Your task to perform on an android device: add a contact Image 0: 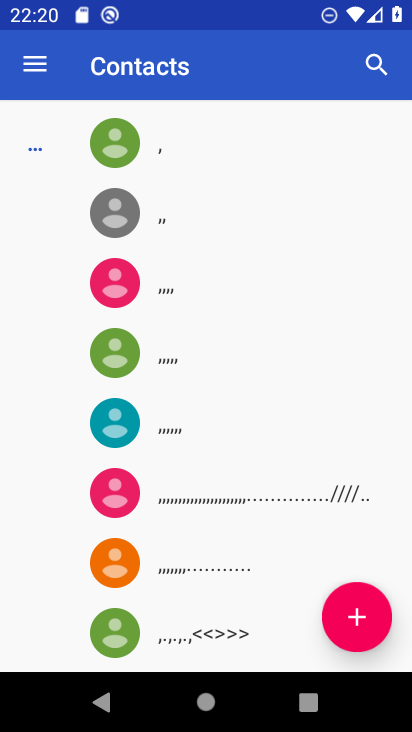
Step 0: press home button
Your task to perform on an android device: add a contact Image 1: 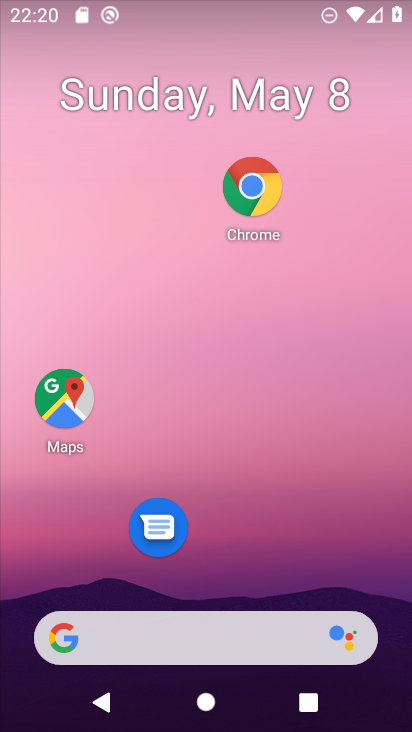
Step 1: drag from (266, 510) to (314, 243)
Your task to perform on an android device: add a contact Image 2: 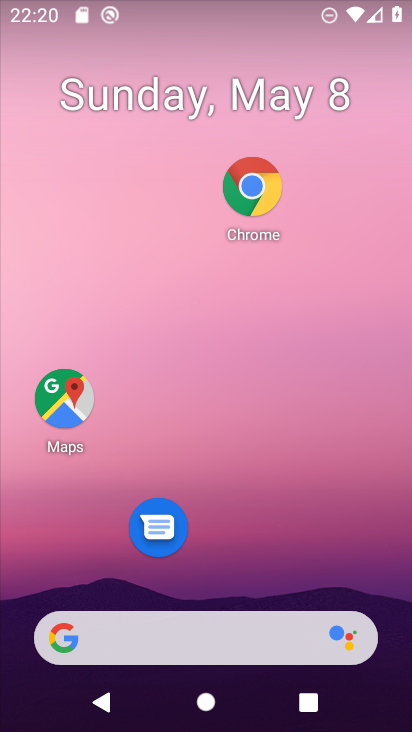
Step 2: drag from (283, 606) to (323, 312)
Your task to perform on an android device: add a contact Image 3: 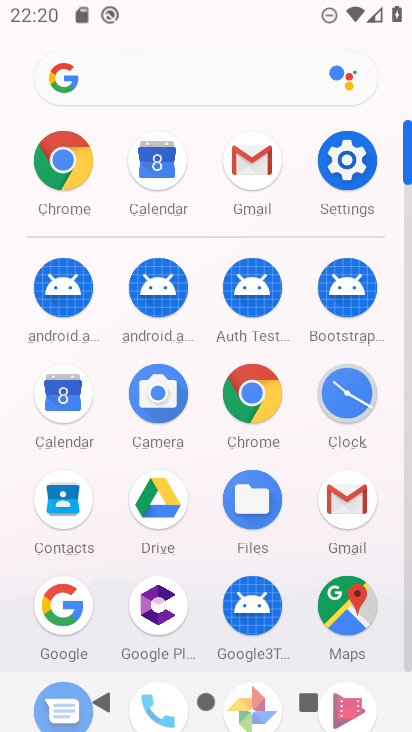
Step 3: drag from (280, 578) to (343, 192)
Your task to perform on an android device: add a contact Image 4: 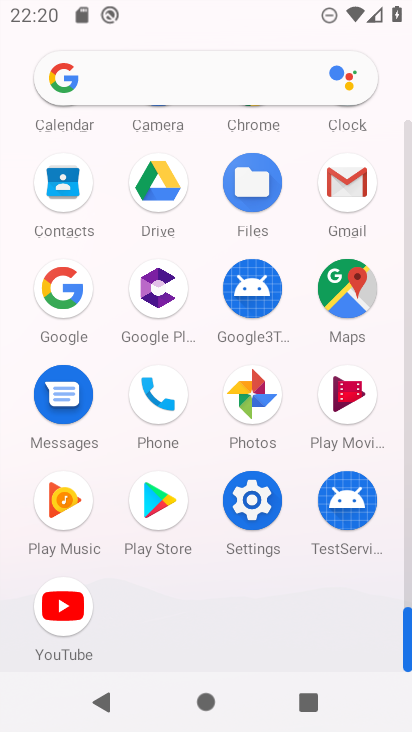
Step 4: click (153, 389)
Your task to perform on an android device: add a contact Image 5: 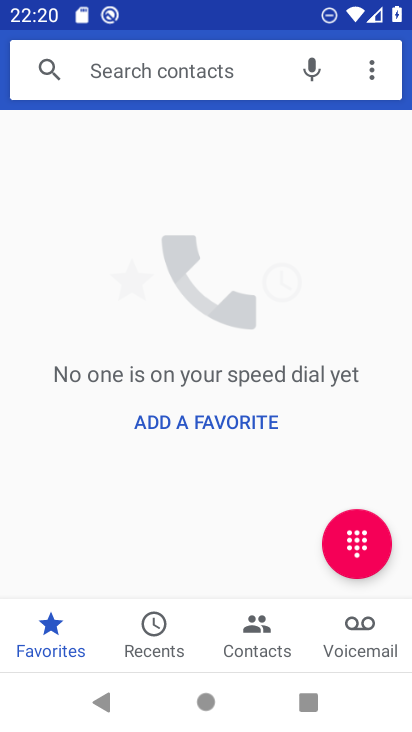
Step 5: click (204, 424)
Your task to perform on an android device: add a contact Image 6: 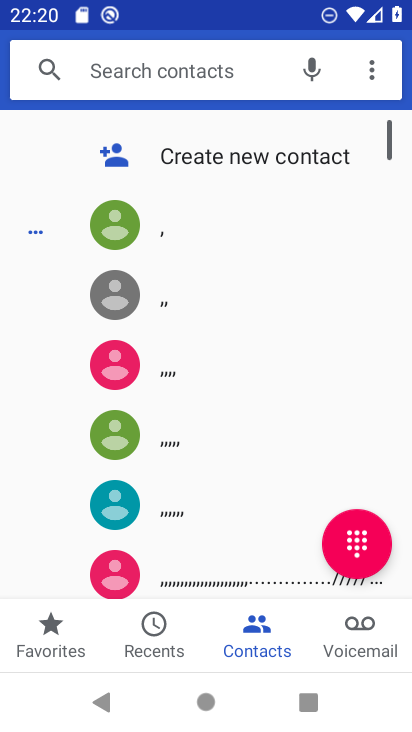
Step 6: click (213, 162)
Your task to perform on an android device: add a contact Image 7: 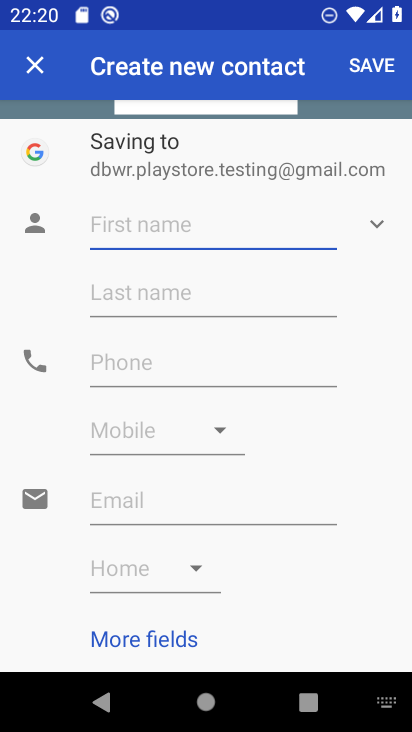
Step 7: type "fffffffffffffg"
Your task to perform on an android device: add a contact Image 8: 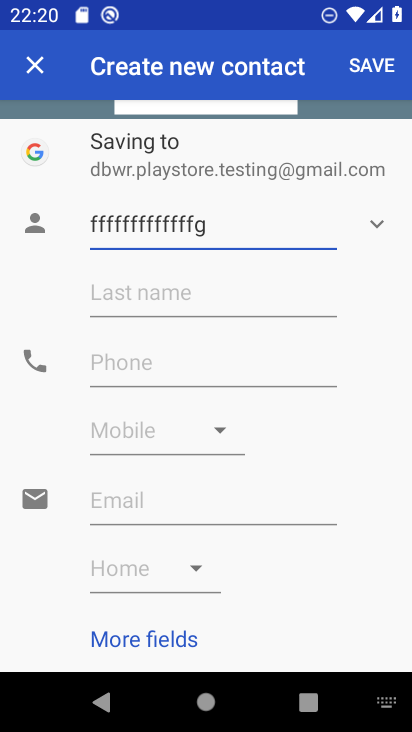
Step 8: click (137, 364)
Your task to perform on an android device: add a contact Image 9: 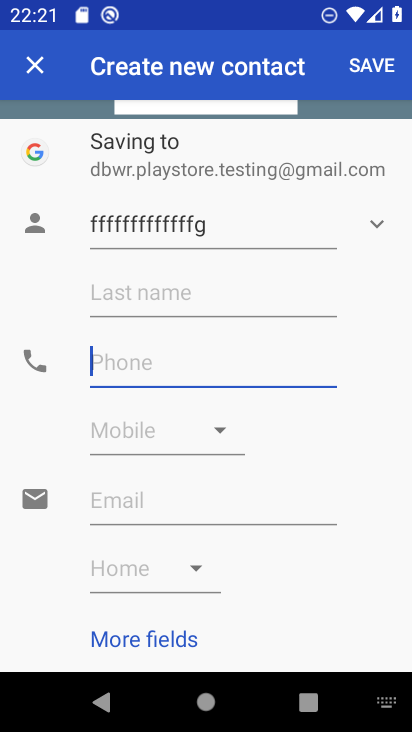
Step 9: type "878787878788"
Your task to perform on an android device: add a contact Image 10: 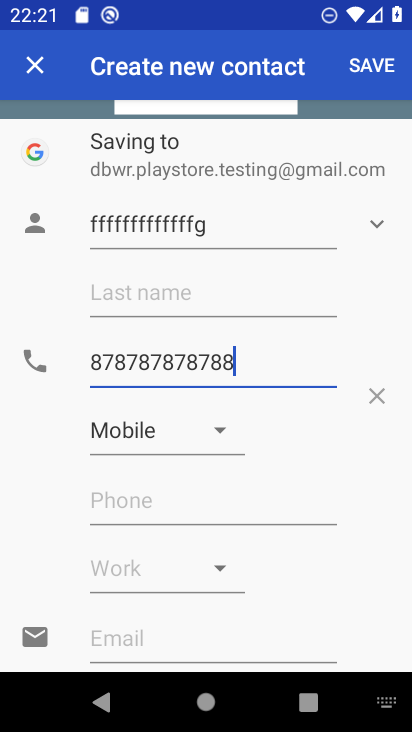
Step 10: drag from (322, 492) to (304, 221)
Your task to perform on an android device: add a contact Image 11: 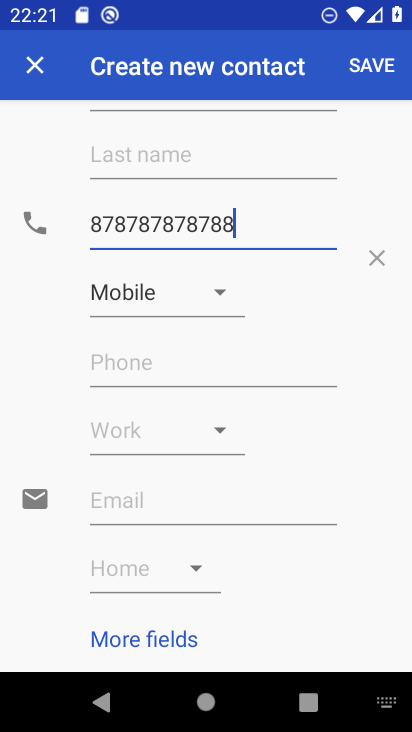
Step 11: click (361, 66)
Your task to perform on an android device: add a contact Image 12: 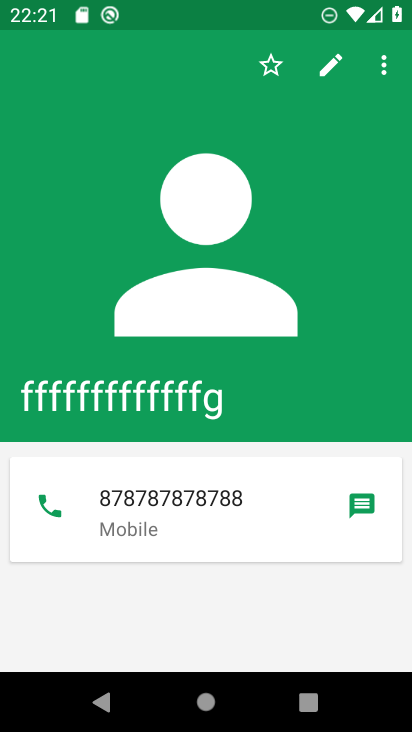
Step 12: task complete